Your task to perform on an android device: Open Google Chrome Image 0: 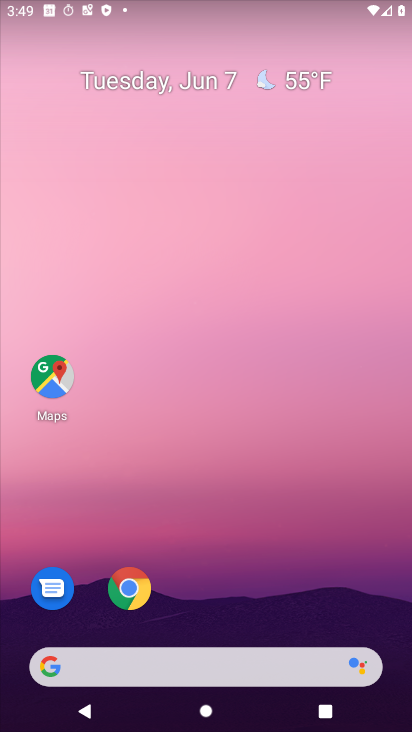
Step 0: press home button
Your task to perform on an android device: Open Google Chrome Image 1: 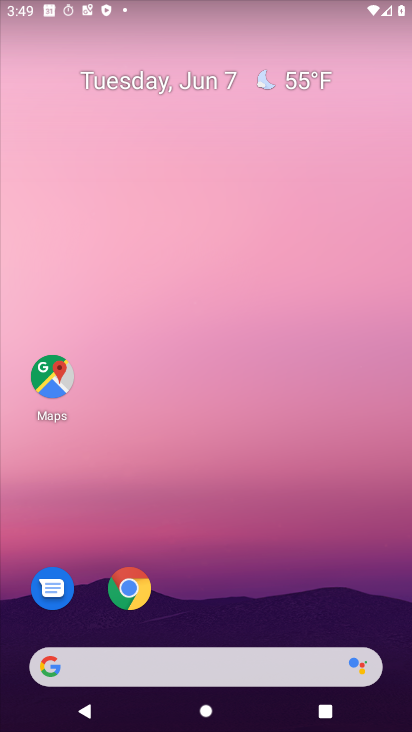
Step 1: click (59, 673)
Your task to perform on an android device: Open Google Chrome Image 2: 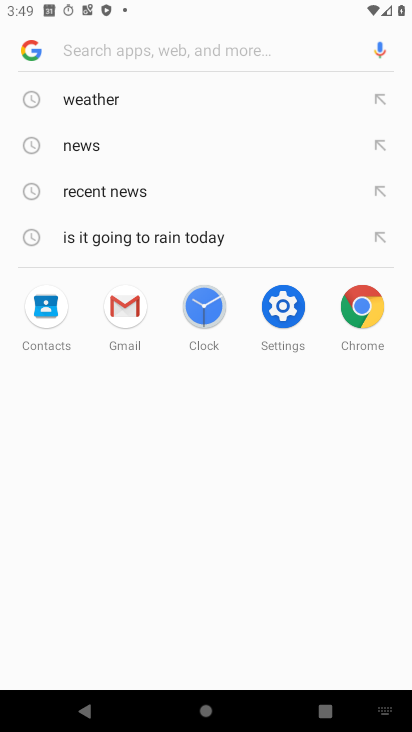
Step 2: press home button
Your task to perform on an android device: Open Google Chrome Image 3: 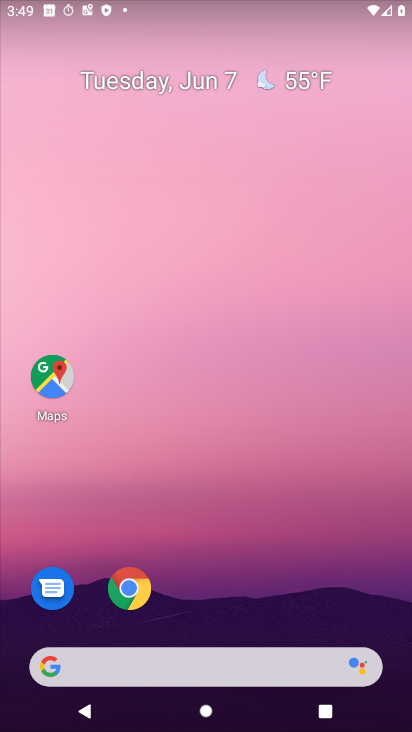
Step 3: click (136, 594)
Your task to perform on an android device: Open Google Chrome Image 4: 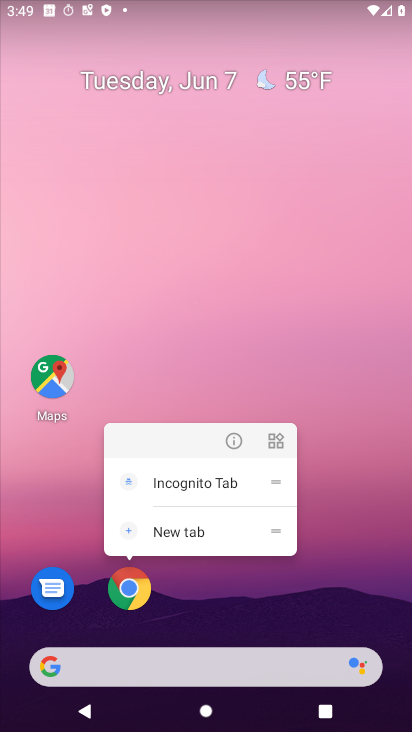
Step 4: click (242, 586)
Your task to perform on an android device: Open Google Chrome Image 5: 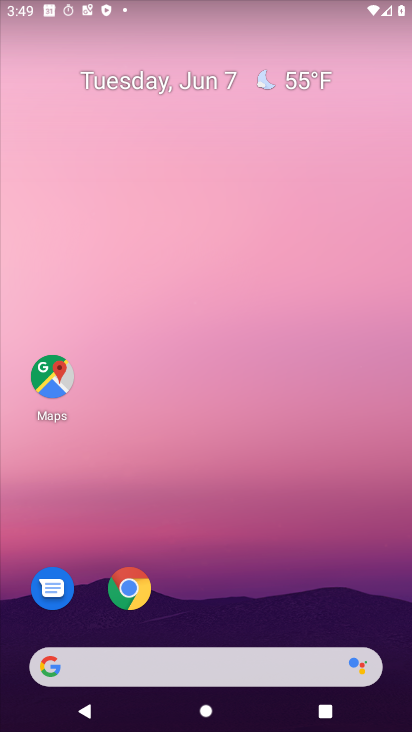
Step 5: drag from (246, 611) to (268, 0)
Your task to perform on an android device: Open Google Chrome Image 6: 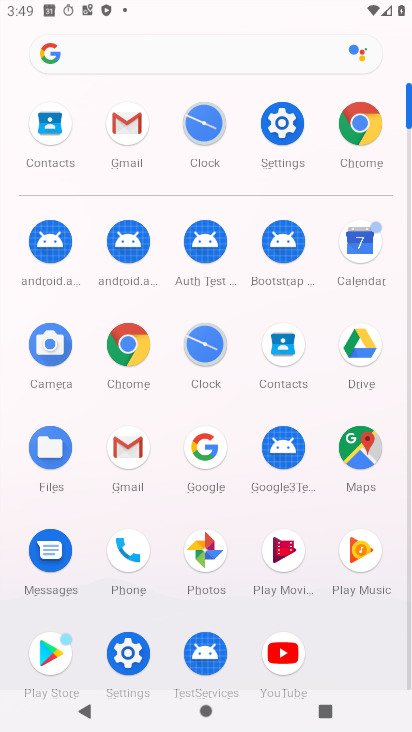
Step 6: click (126, 347)
Your task to perform on an android device: Open Google Chrome Image 7: 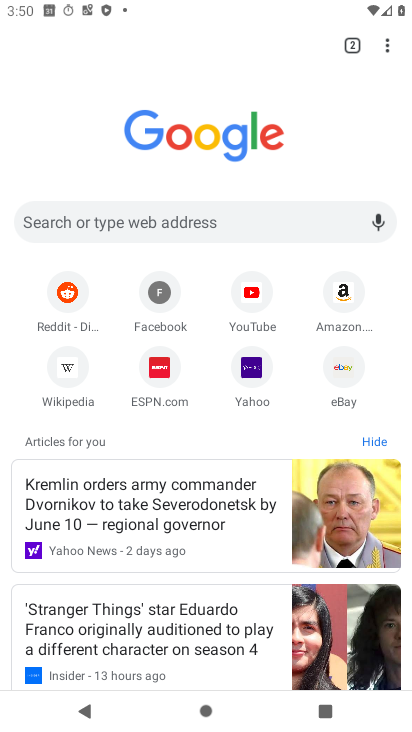
Step 7: task complete